Your task to perform on an android device: Go to Google maps Image 0: 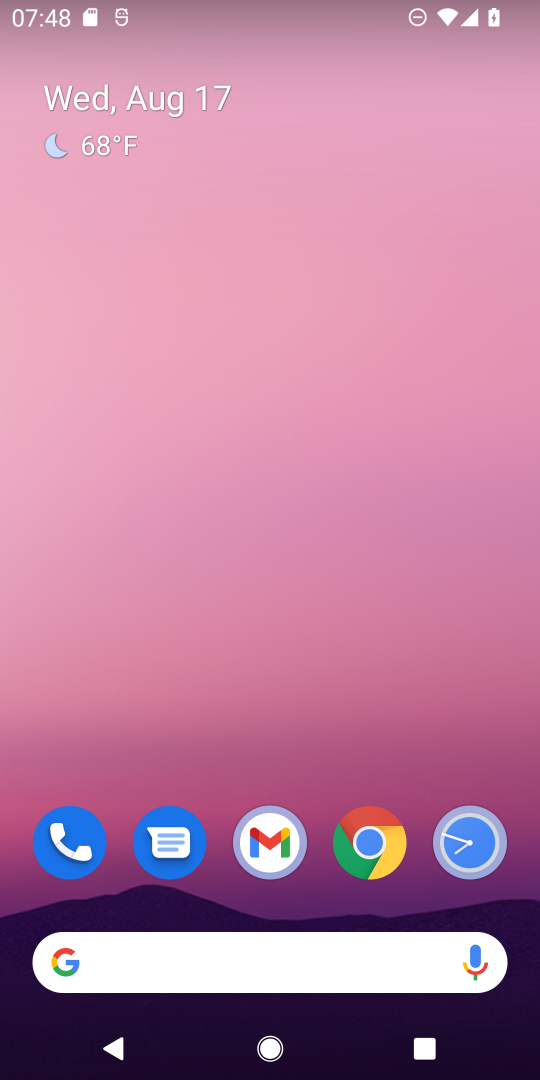
Step 0: drag from (278, 721) to (319, 0)
Your task to perform on an android device: Go to Google maps Image 1: 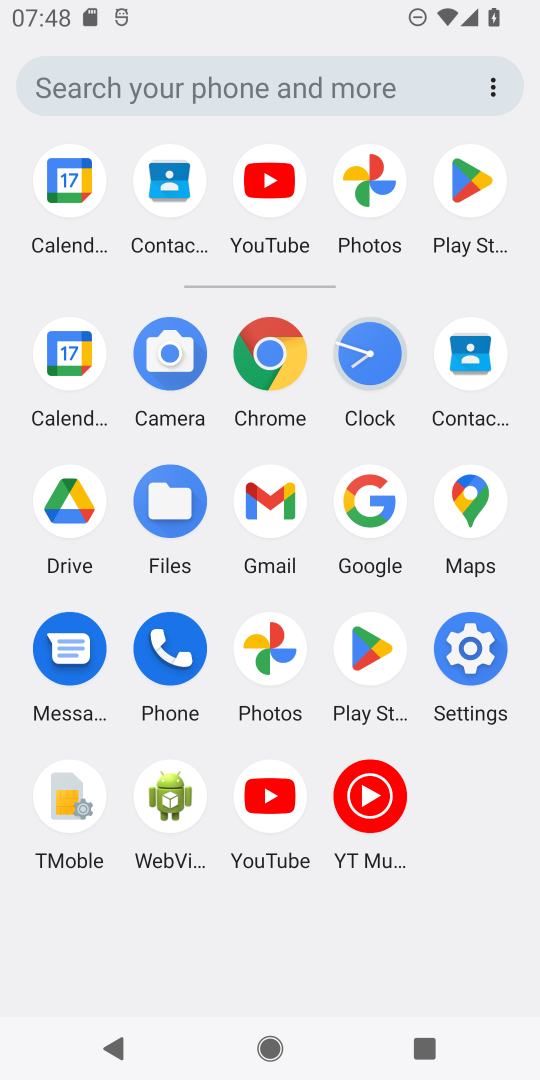
Step 1: click (466, 493)
Your task to perform on an android device: Go to Google maps Image 2: 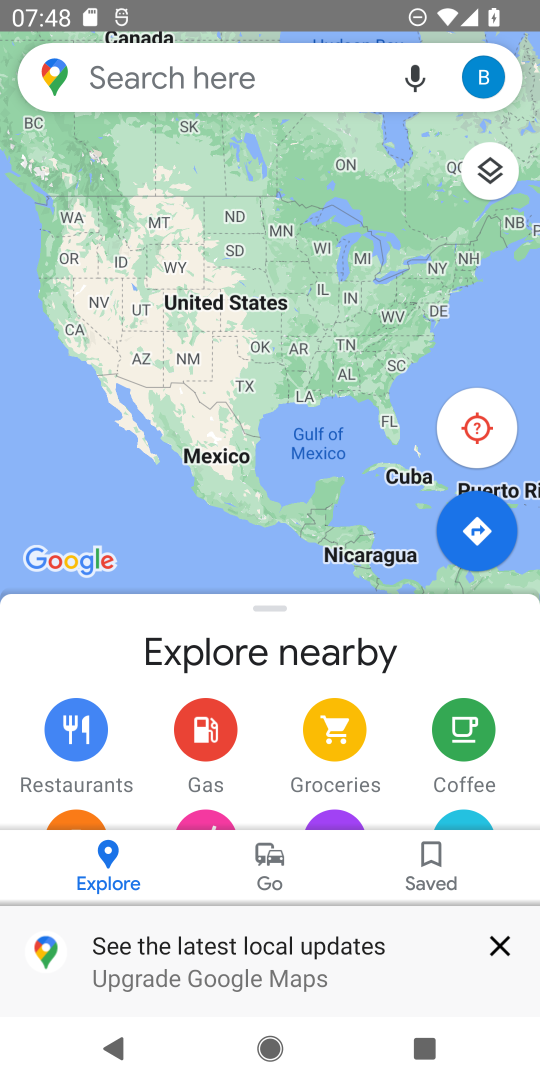
Step 2: task complete